Your task to perform on an android device: turn on priority inbox in the gmail app Image 0: 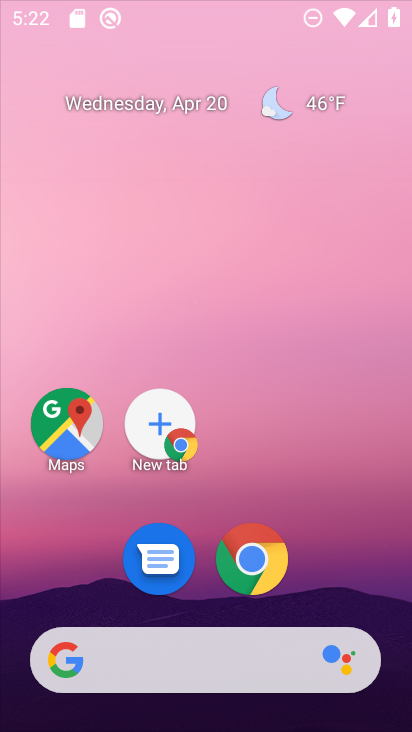
Step 0: click (269, 563)
Your task to perform on an android device: turn on priority inbox in the gmail app Image 1: 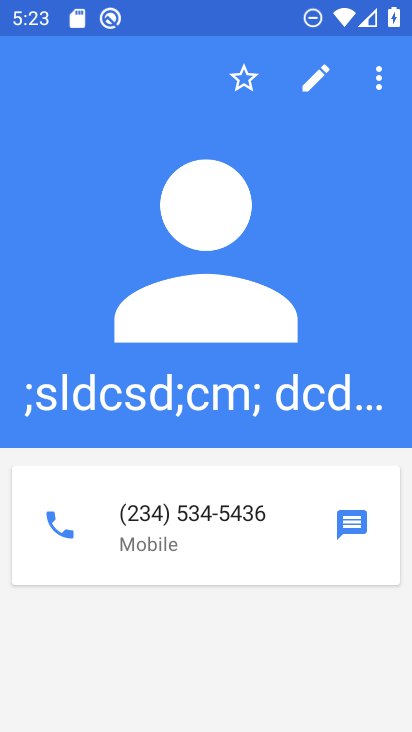
Step 1: press back button
Your task to perform on an android device: turn on priority inbox in the gmail app Image 2: 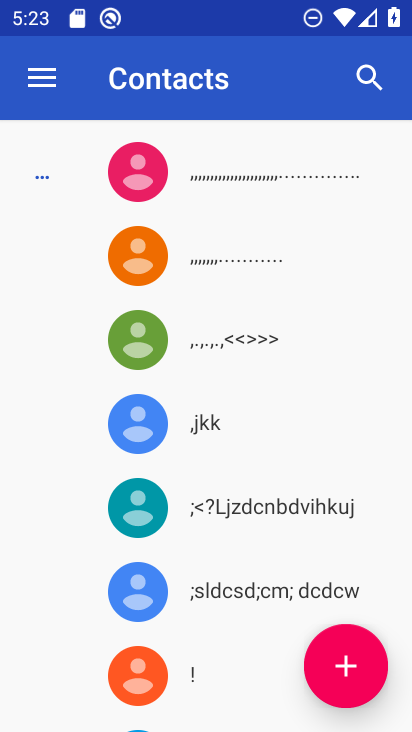
Step 2: press back button
Your task to perform on an android device: turn on priority inbox in the gmail app Image 3: 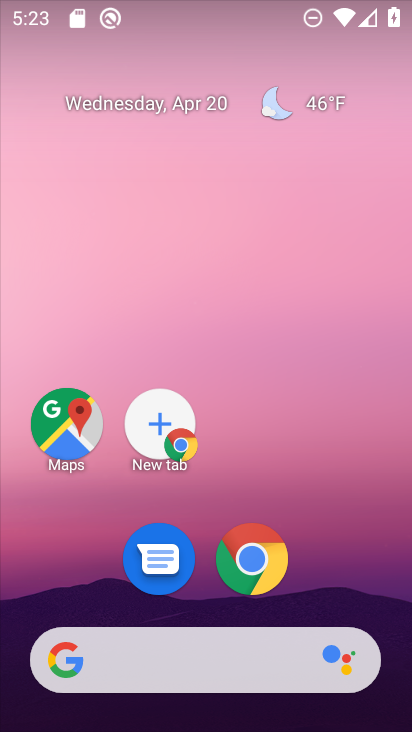
Step 3: drag from (382, 476) to (283, 48)
Your task to perform on an android device: turn on priority inbox in the gmail app Image 4: 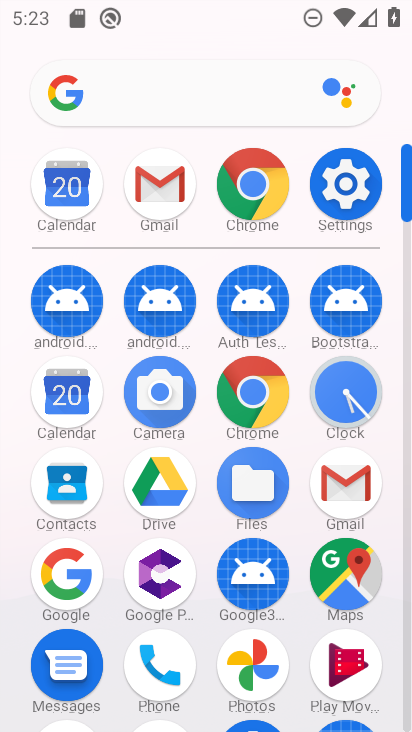
Step 4: click (172, 192)
Your task to perform on an android device: turn on priority inbox in the gmail app Image 5: 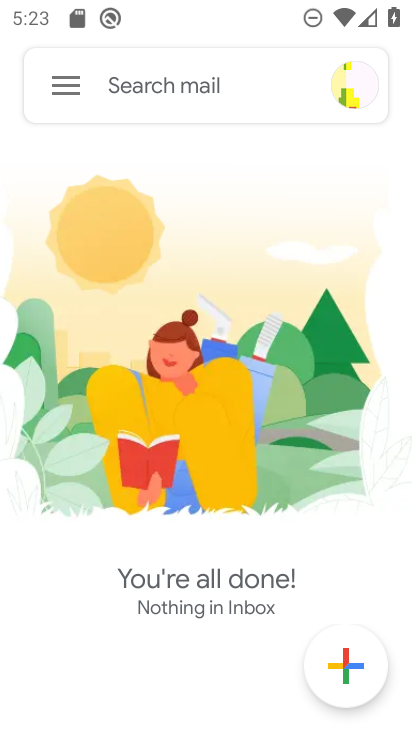
Step 5: click (64, 83)
Your task to perform on an android device: turn on priority inbox in the gmail app Image 6: 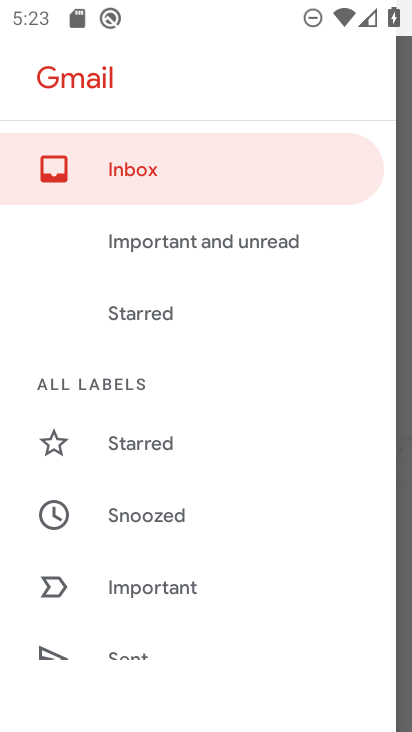
Step 6: drag from (130, 584) to (172, 266)
Your task to perform on an android device: turn on priority inbox in the gmail app Image 7: 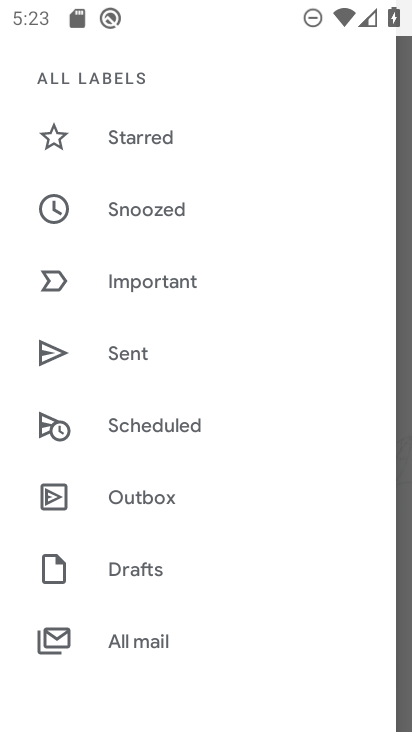
Step 7: click (145, 625)
Your task to perform on an android device: turn on priority inbox in the gmail app Image 8: 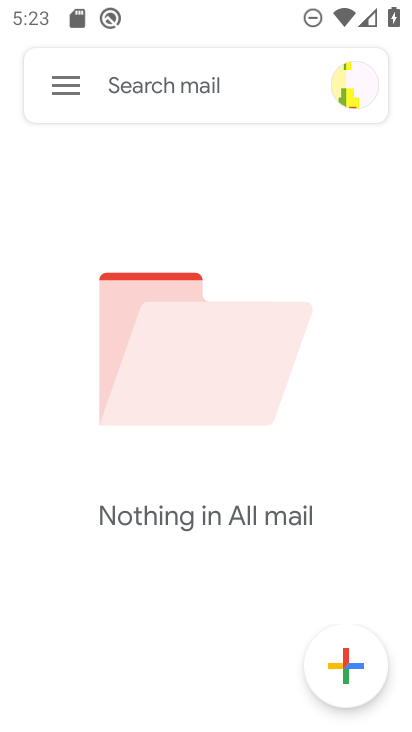
Step 8: task complete